Your task to perform on an android device: toggle notification dots Image 0: 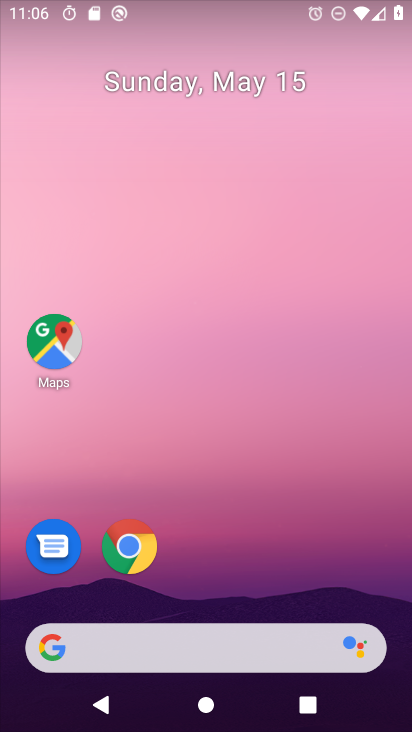
Step 0: drag from (267, 555) to (289, 132)
Your task to perform on an android device: toggle notification dots Image 1: 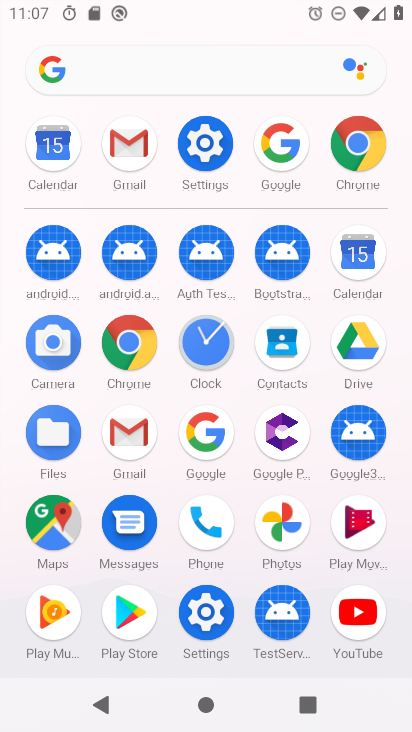
Step 1: click (214, 135)
Your task to perform on an android device: toggle notification dots Image 2: 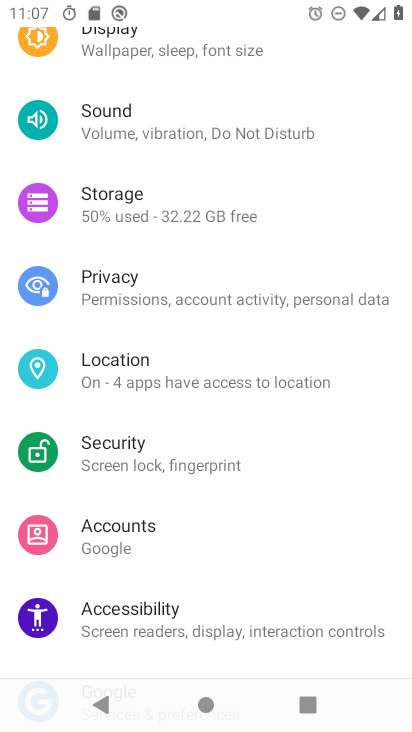
Step 2: drag from (210, 553) to (219, 640)
Your task to perform on an android device: toggle notification dots Image 3: 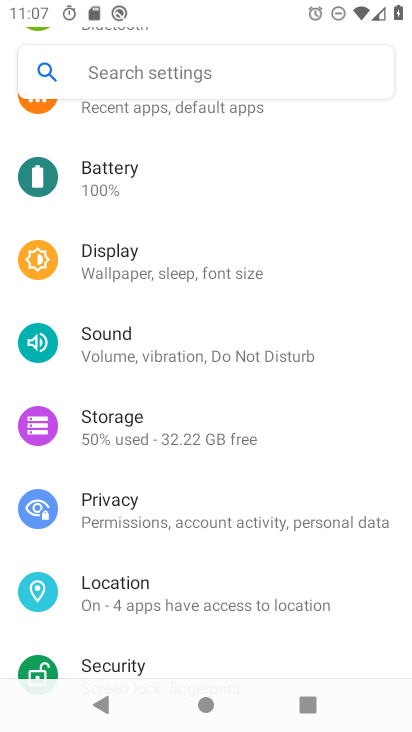
Step 3: drag from (215, 285) to (239, 609)
Your task to perform on an android device: toggle notification dots Image 4: 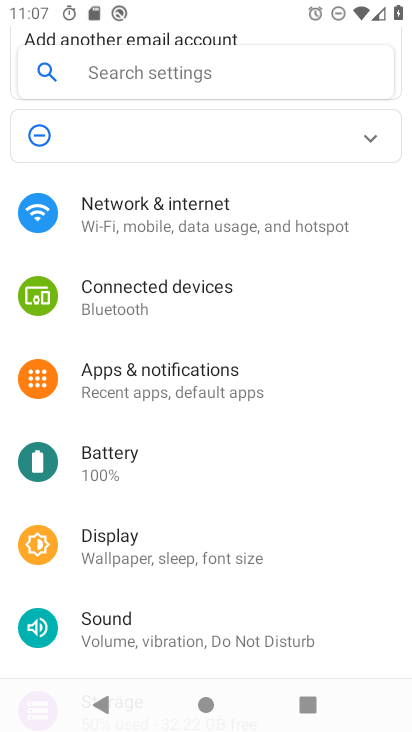
Step 4: click (197, 401)
Your task to perform on an android device: toggle notification dots Image 5: 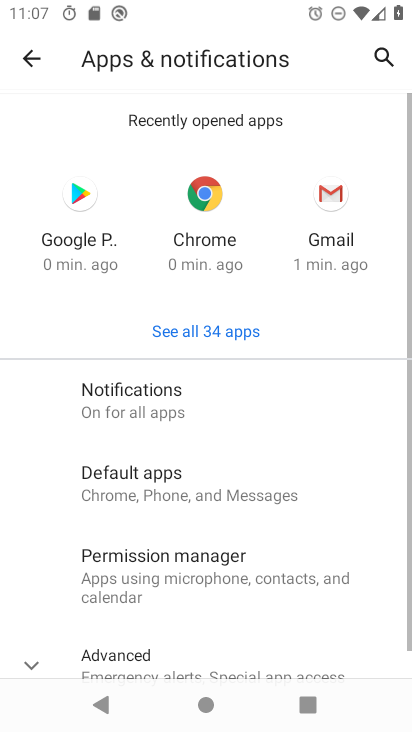
Step 5: click (157, 400)
Your task to perform on an android device: toggle notification dots Image 6: 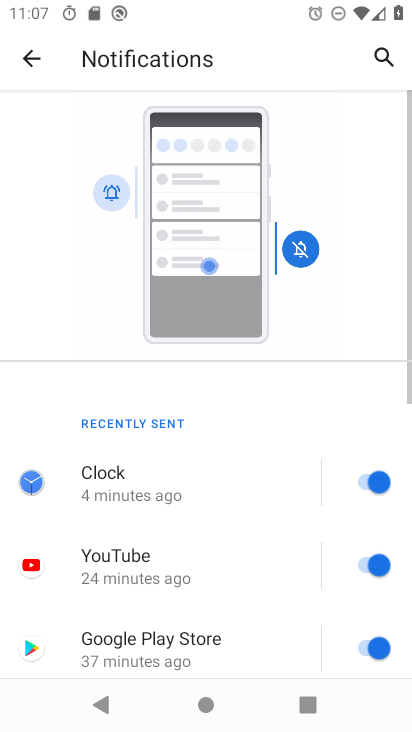
Step 6: drag from (208, 544) to (333, 134)
Your task to perform on an android device: toggle notification dots Image 7: 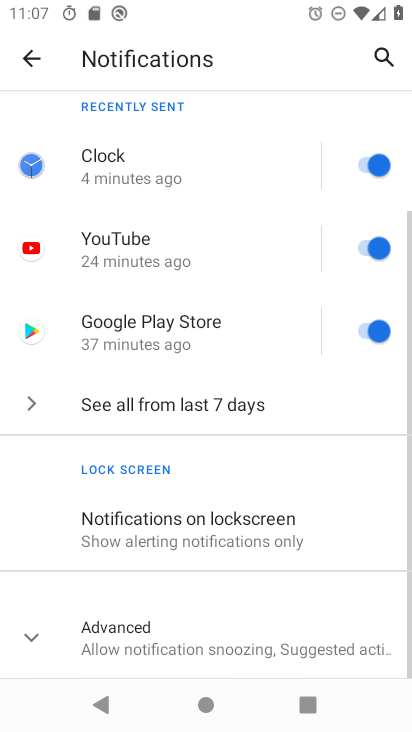
Step 7: drag from (281, 294) to (303, 170)
Your task to perform on an android device: toggle notification dots Image 8: 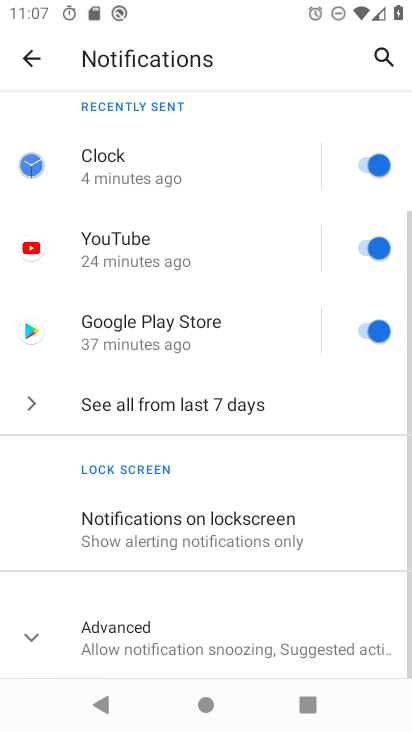
Step 8: click (183, 637)
Your task to perform on an android device: toggle notification dots Image 9: 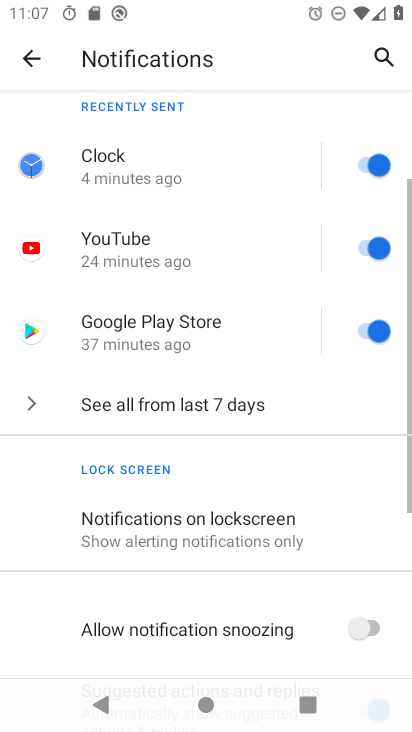
Step 9: drag from (196, 603) to (284, 165)
Your task to perform on an android device: toggle notification dots Image 10: 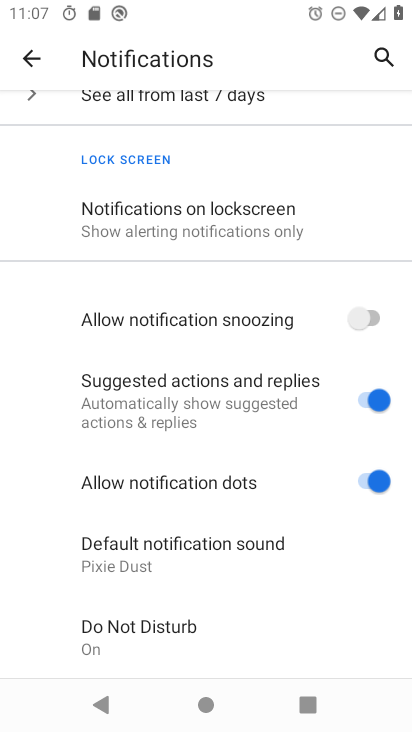
Step 10: click (353, 486)
Your task to perform on an android device: toggle notification dots Image 11: 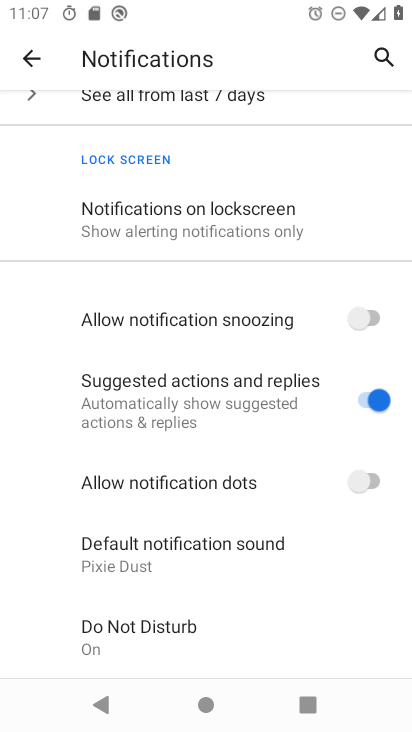
Step 11: task complete